Your task to perform on an android device: Is it going to rain this weekend? Image 0: 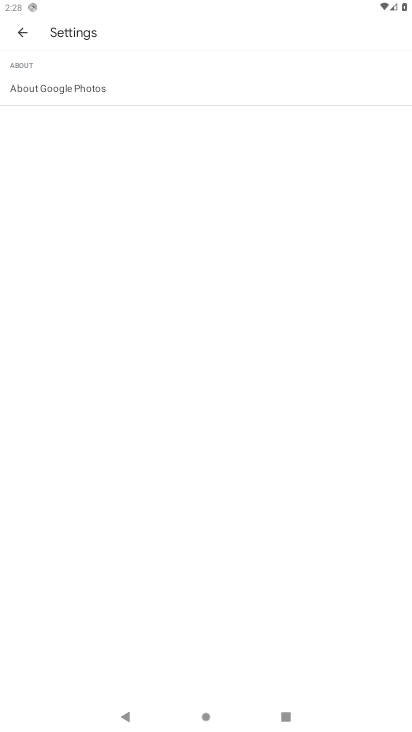
Step 0: press home button
Your task to perform on an android device: Is it going to rain this weekend? Image 1: 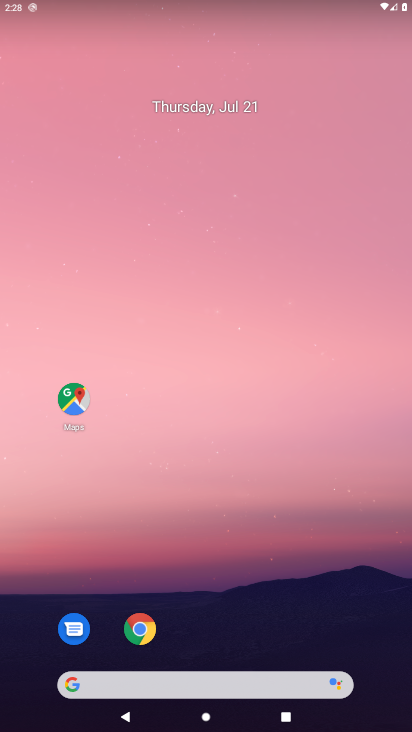
Step 1: click (88, 679)
Your task to perform on an android device: Is it going to rain this weekend? Image 2: 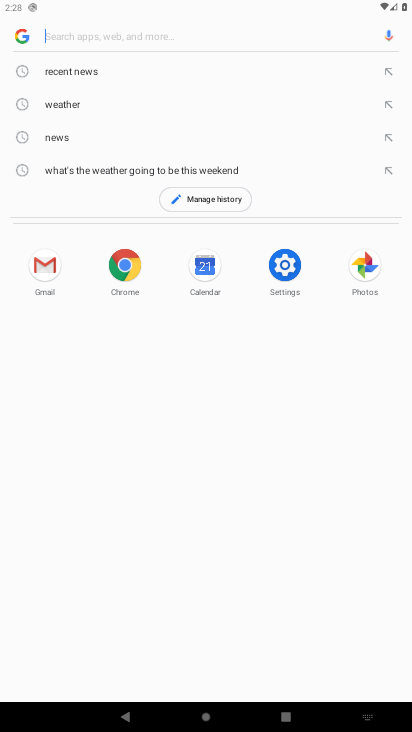
Step 2: type "Is it going to rain this weekend?"
Your task to perform on an android device: Is it going to rain this weekend? Image 3: 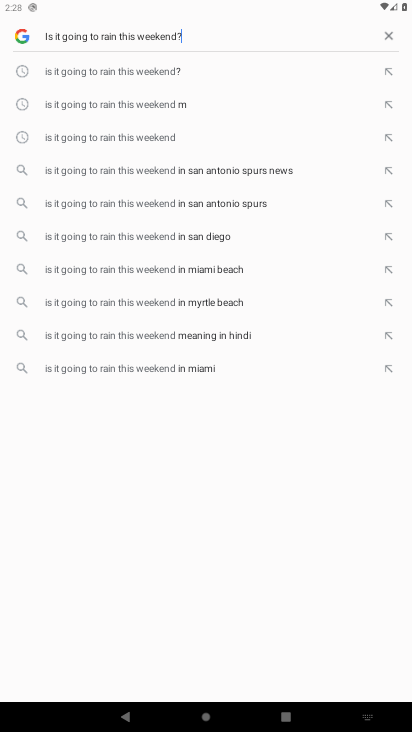
Step 3: type ""
Your task to perform on an android device: Is it going to rain this weekend? Image 4: 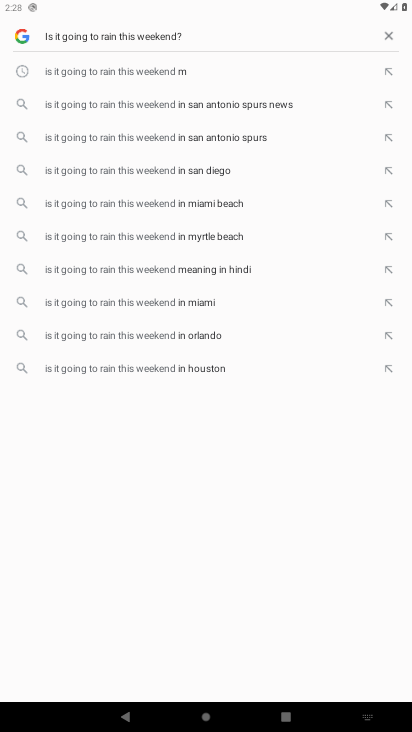
Step 4: type ""
Your task to perform on an android device: Is it going to rain this weekend? Image 5: 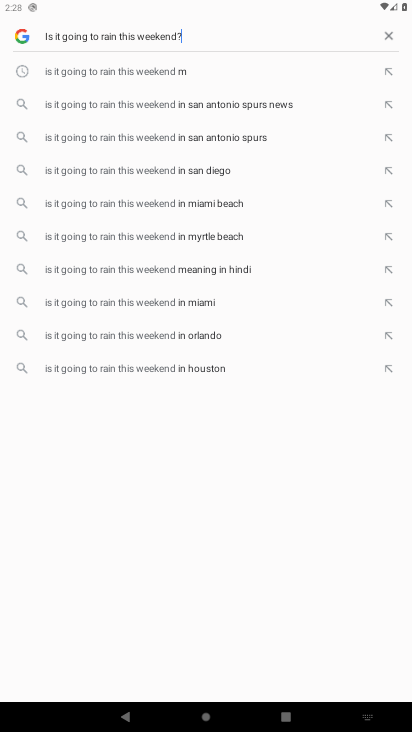
Step 5: type ""
Your task to perform on an android device: Is it going to rain this weekend? Image 6: 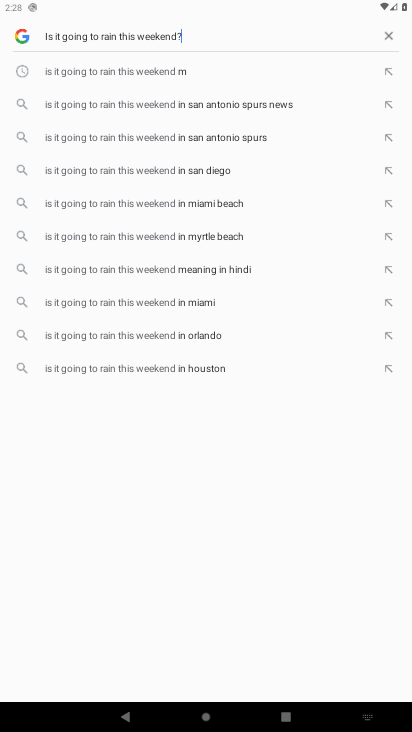
Step 6: task complete